Your task to perform on an android device: clear all cookies in the chrome app Image 0: 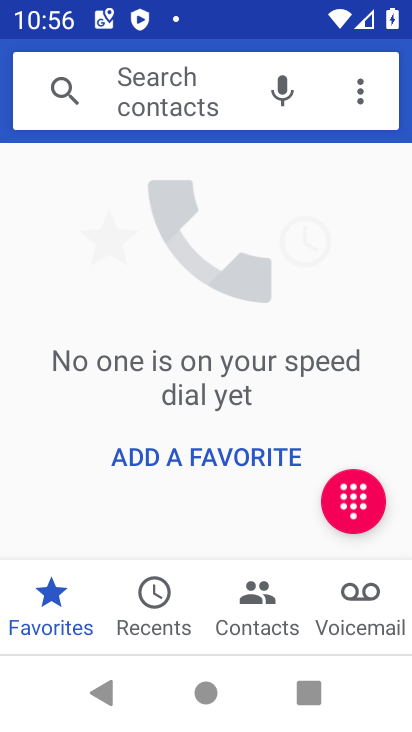
Step 0: press home button
Your task to perform on an android device: clear all cookies in the chrome app Image 1: 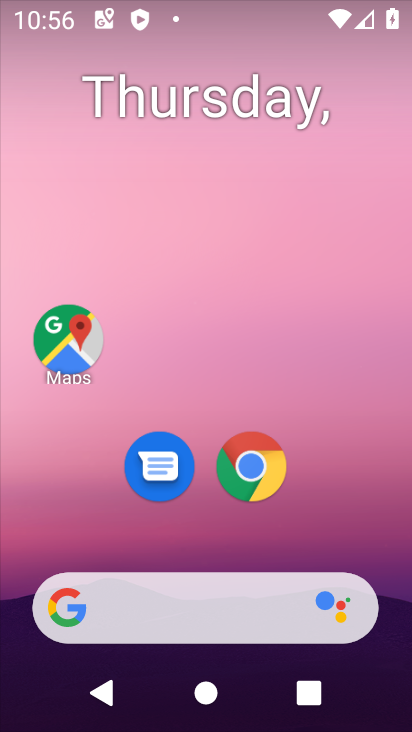
Step 1: click (248, 477)
Your task to perform on an android device: clear all cookies in the chrome app Image 2: 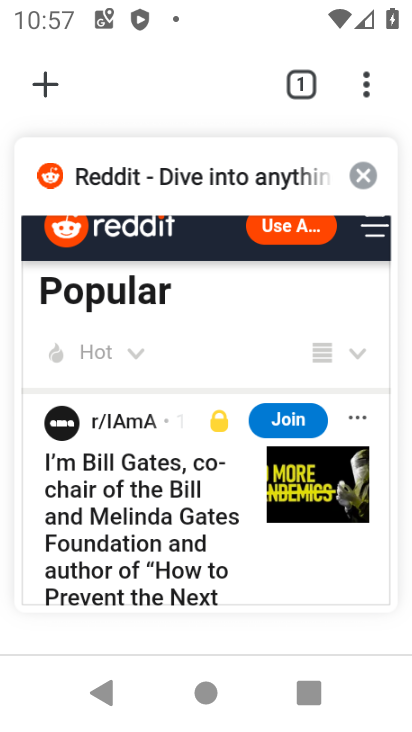
Step 2: click (321, 182)
Your task to perform on an android device: clear all cookies in the chrome app Image 3: 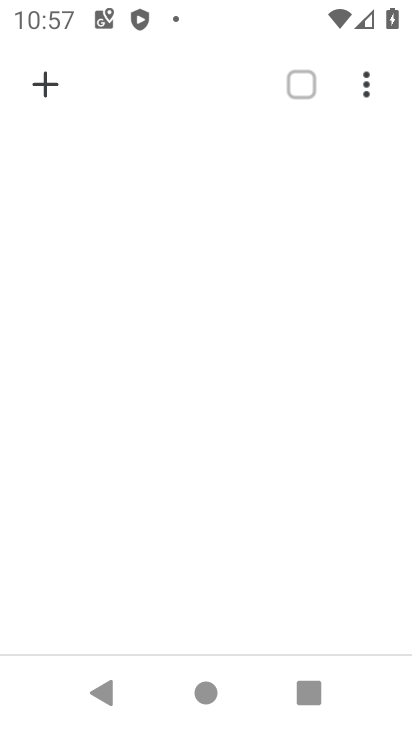
Step 3: click (59, 77)
Your task to perform on an android device: clear all cookies in the chrome app Image 4: 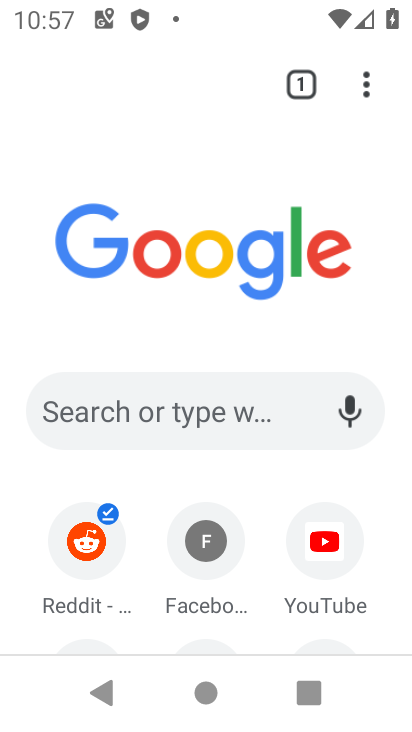
Step 4: click (373, 77)
Your task to perform on an android device: clear all cookies in the chrome app Image 5: 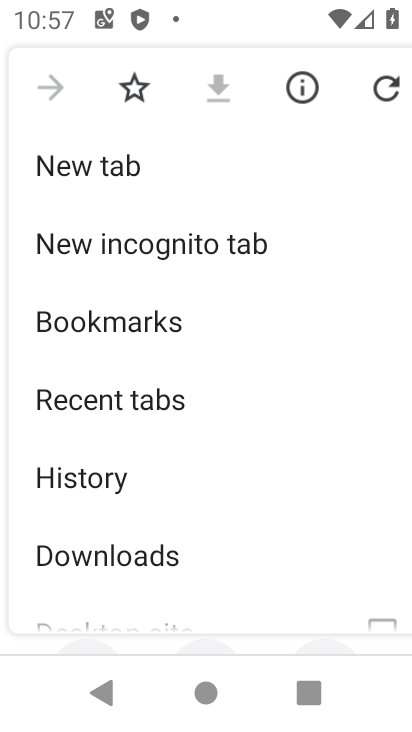
Step 5: drag from (272, 556) to (196, 120)
Your task to perform on an android device: clear all cookies in the chrome app Image 6: 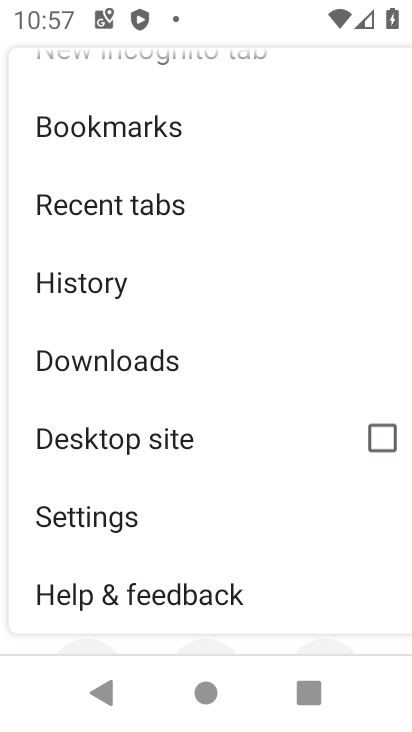
Step 6: click (70, 290)
Your task to perform on an android device: clear all cookies in the chrome app Image 7: 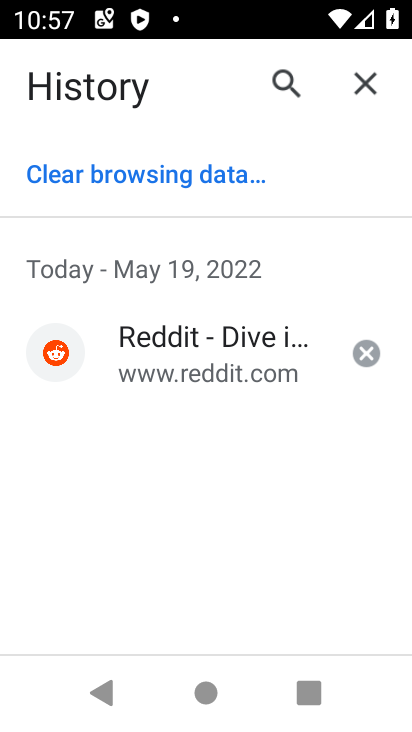
Step 7: click (178, 182)
Your task to perform on an android device: clear all cookies in the chrome app Image 8: 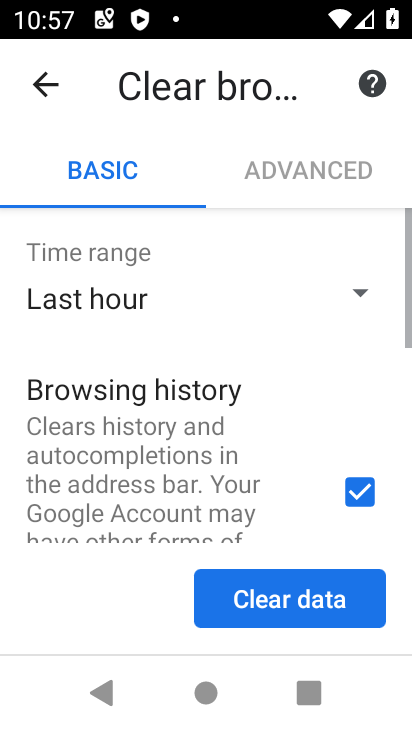
Step 8: drag from (218, 434) to (176, 173)
Your task to perform on an android device: clear all cookies in the chrome app Image 9: 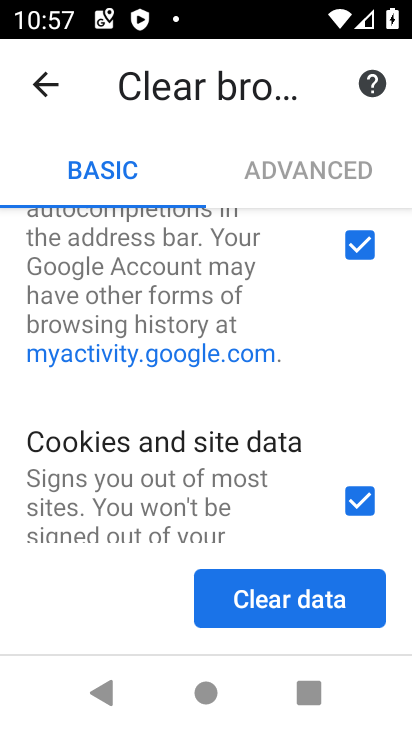
Step 9: click (307, 589)
Your task to perform on an android device: clear all cookies in the chrome app Image 10: 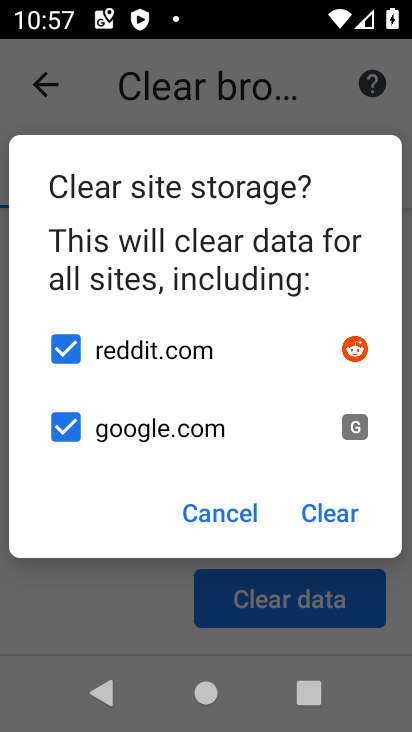
Step 10: click (312, 530)
Your task to perform on an android device: clear all cookies in the chrome app Image 11: 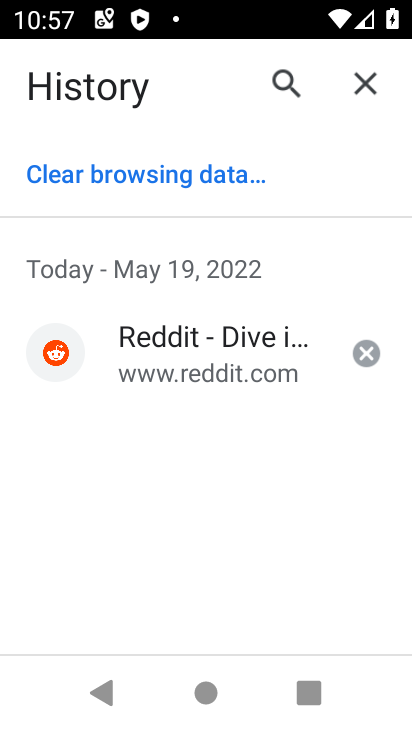
Step 11: task complete